Your task to perform on an android device: Open Google Maps and go to "Timeline" Image 0: 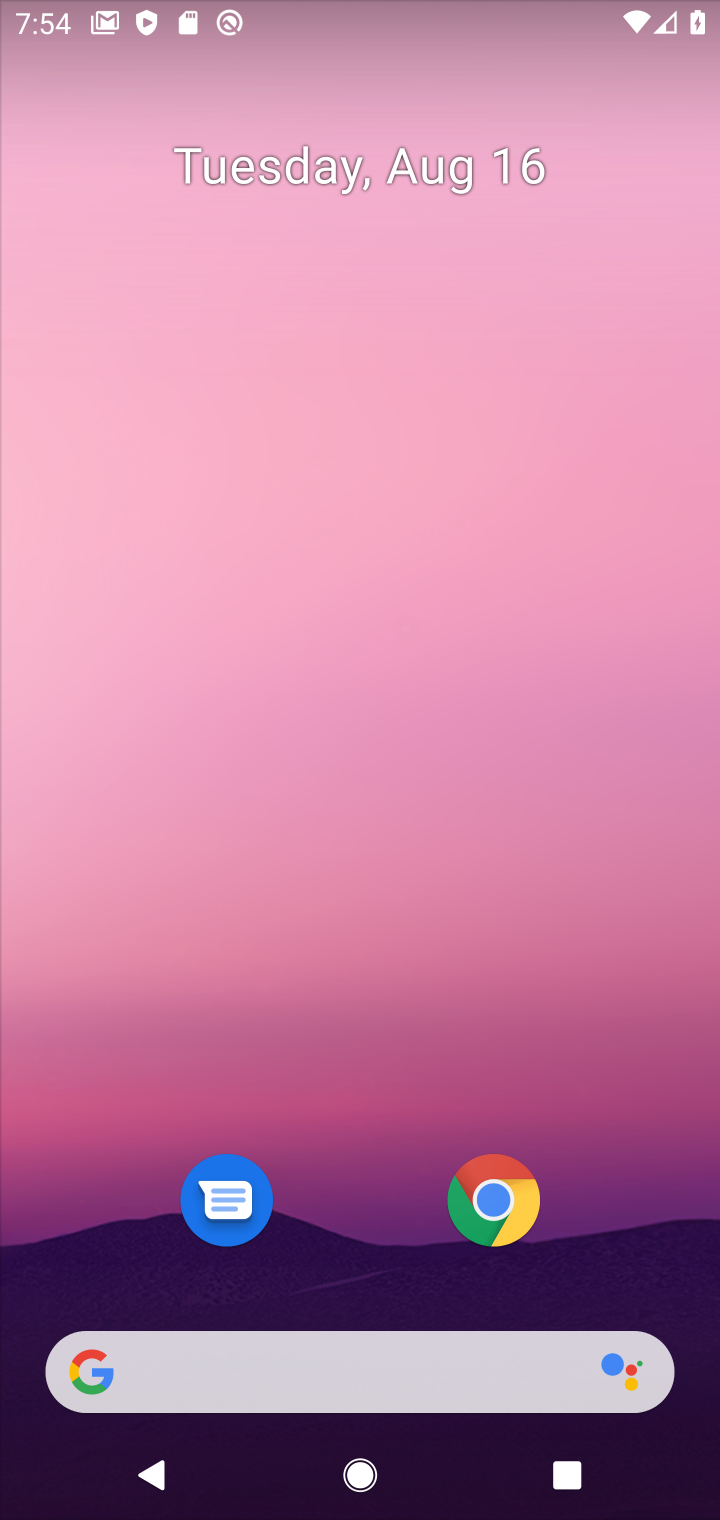
Step 0: drag from (675, 1281) to (619, 196)
Your task to perform on an android device: Open Google Maps and go to "Timeline" Image 1: 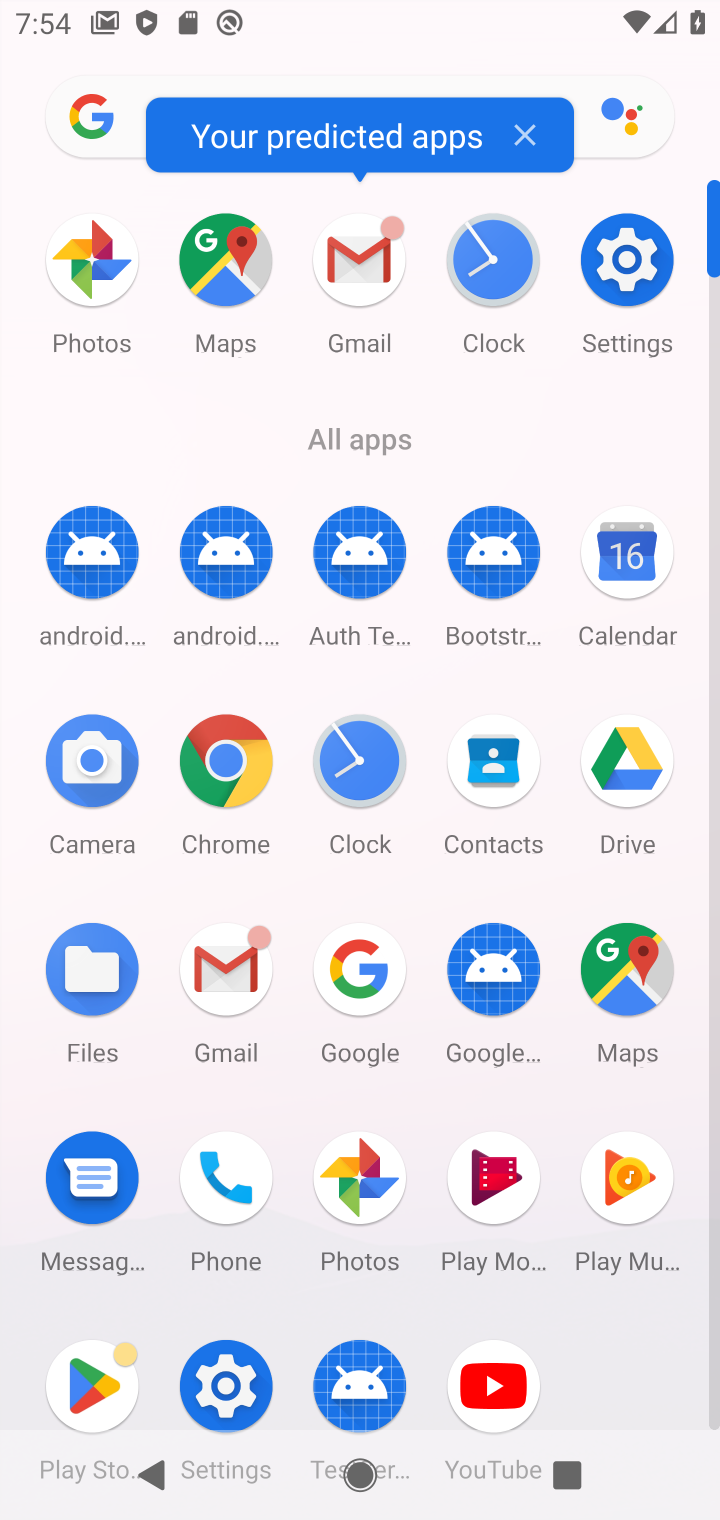
Step 1: click (627, 970)
Your task to perform on an android device: Open Google Maps and go to "Timeline" Image 2: 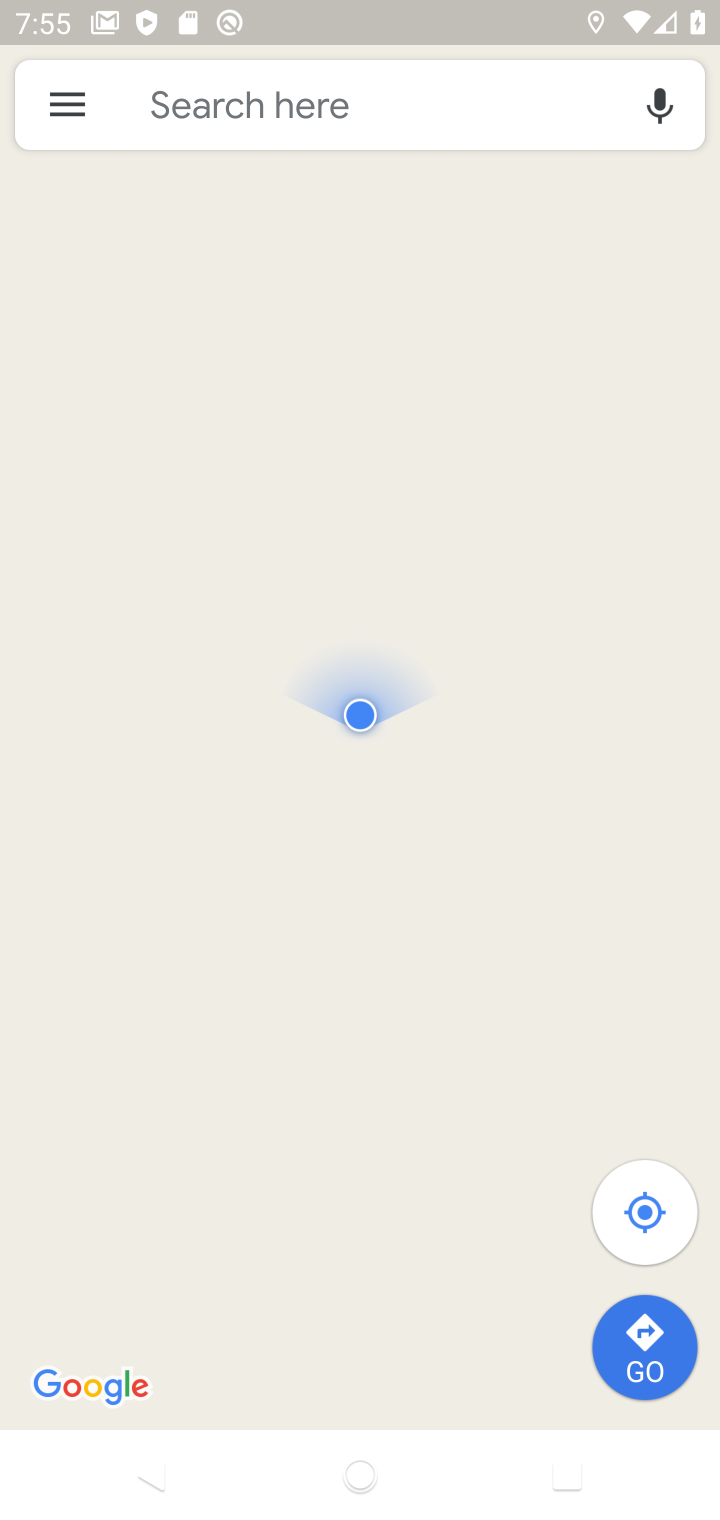
Step 2: click (61, 104)
Your task to perform on an android device: Open Google Maps and go to "Timeline" Image 3: 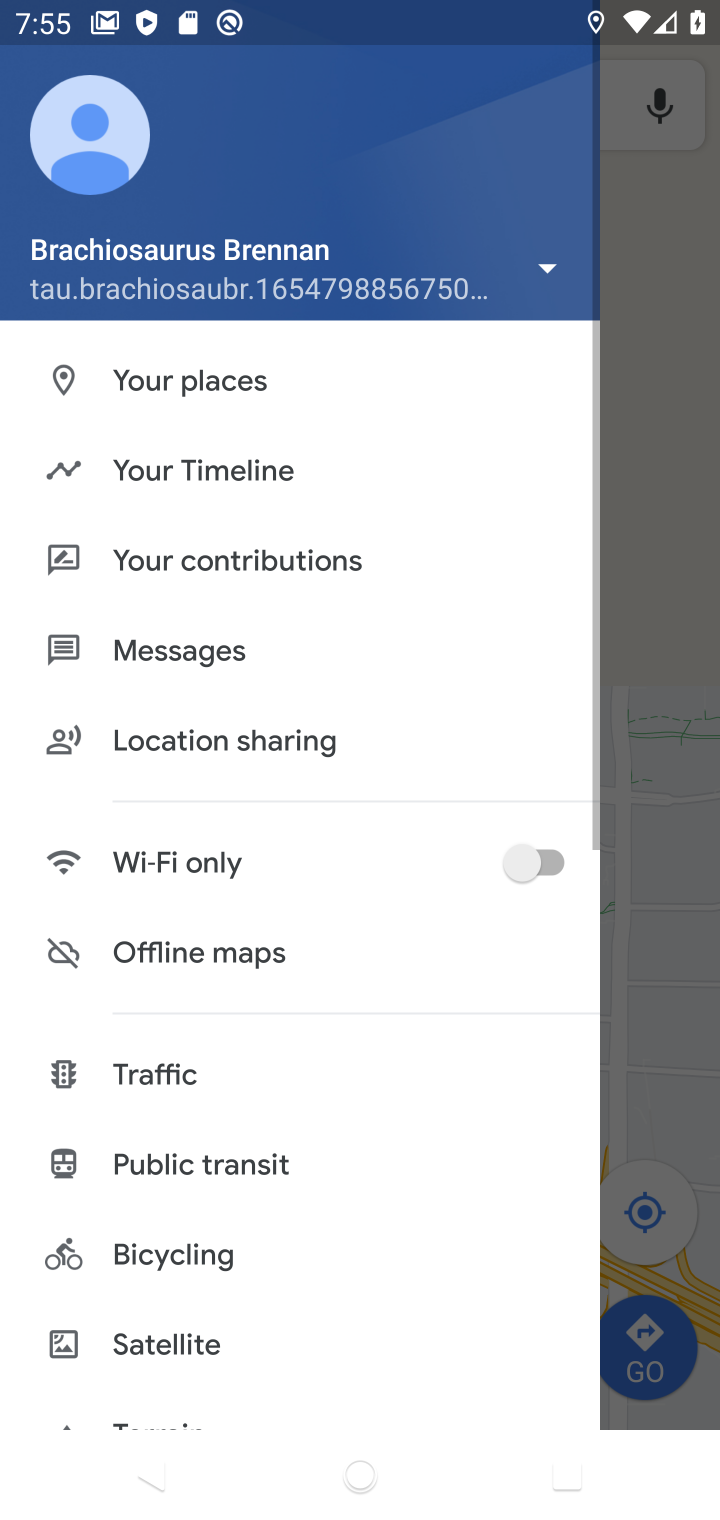
Step 3: click (182, 467)
Your task to perform on an android device: Open Google Maps and go to "Timeline" Image 4: 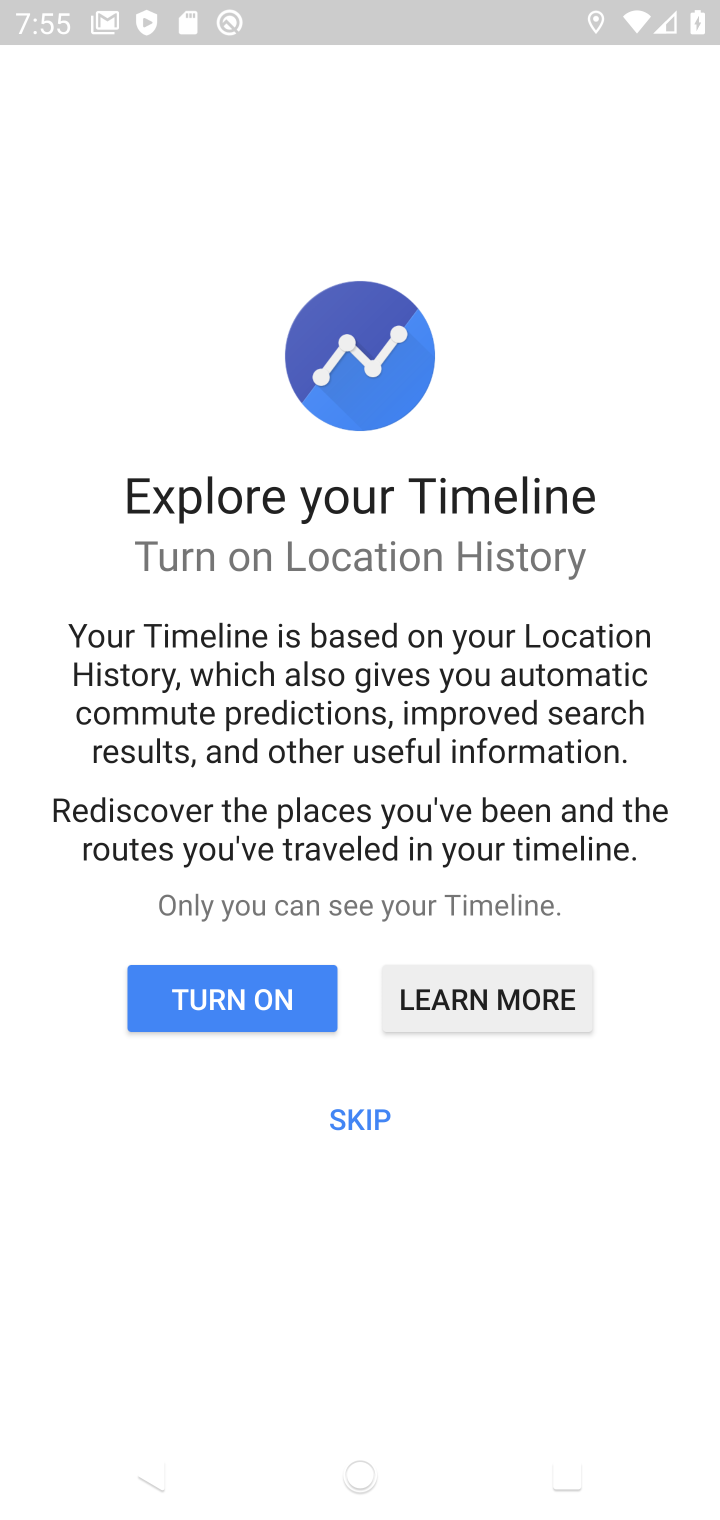
Step 4: click (358, 1112)
Your task to perform on an android device: Open Google Maps and go to "Timeline" Image 5: 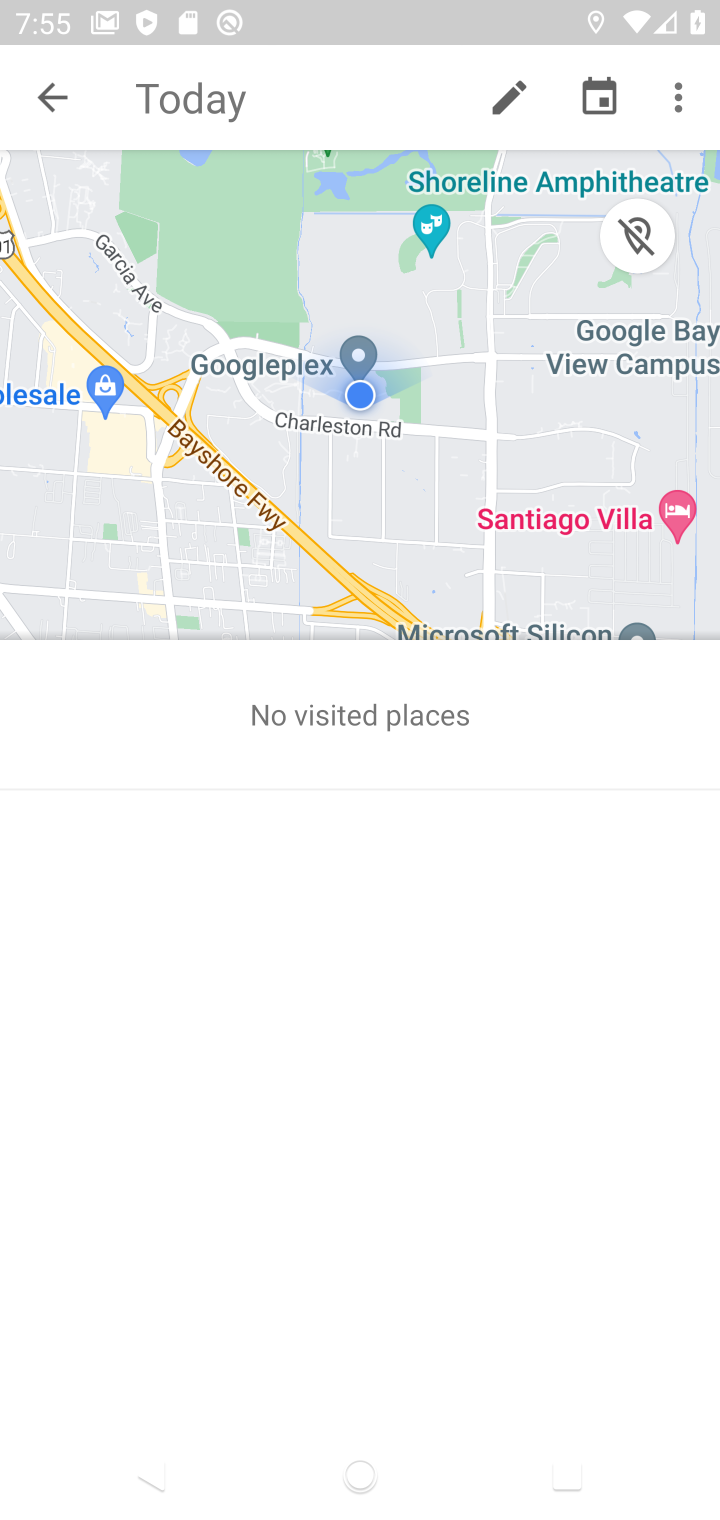
Step 5: task complete